Your task to perform on an android device: change your default location settings in chrome Image 0: 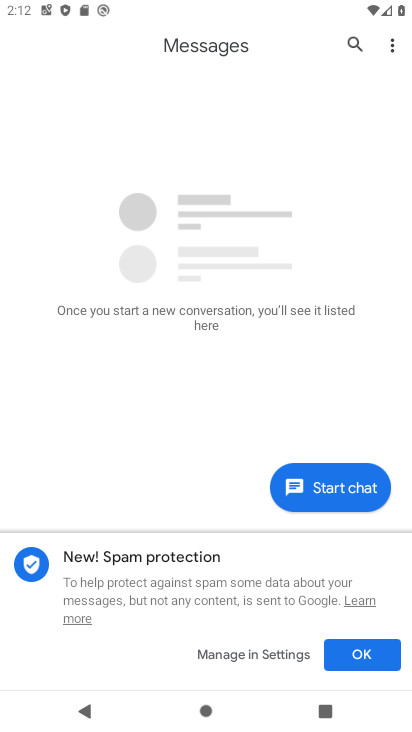
Step 0: press home button
Your task to perform on an android device: change your default location settings in chrome Image 1: 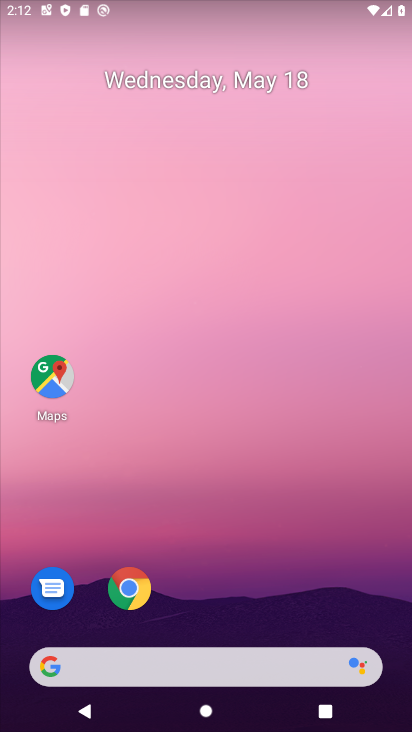
Step 1: drag from (363, 612) to (357, 195)
Your task to perform on an android device: change your default location settings in chrome Image 2: 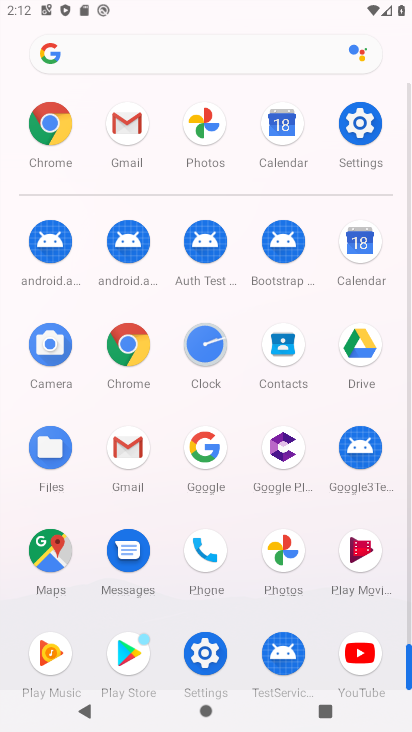
Step 2: click (124, 353)
Your task to perform on an android device: change your default location settings in chrome Image 3: 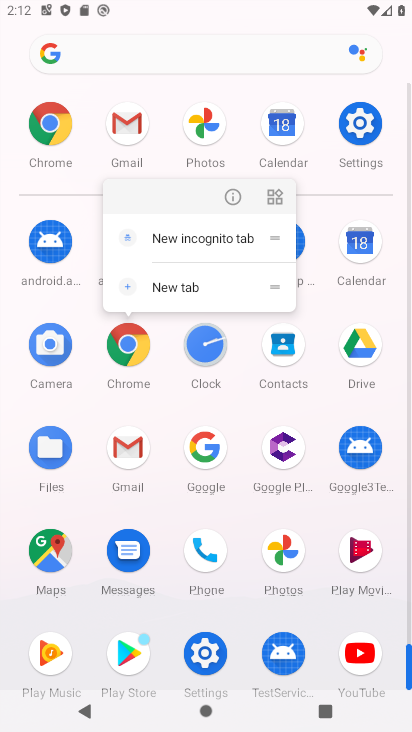
Step 3: click (124, 353)
Your task to perform on an android device: change your default location settings in chrome Image 4: 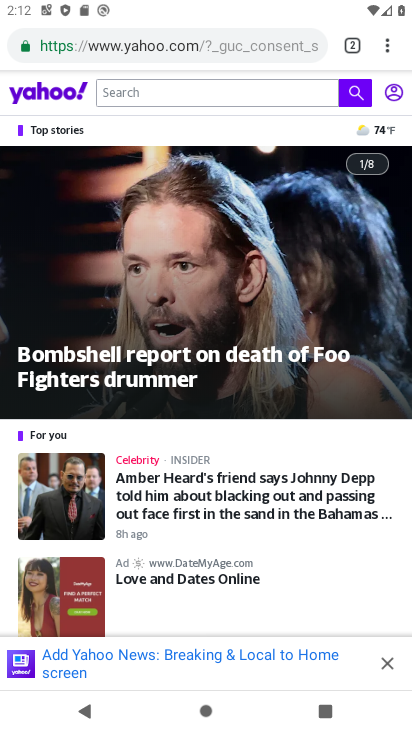
Step 4: press back button
Your task to perform on an android device: change your default location settings in chrome Image 5: 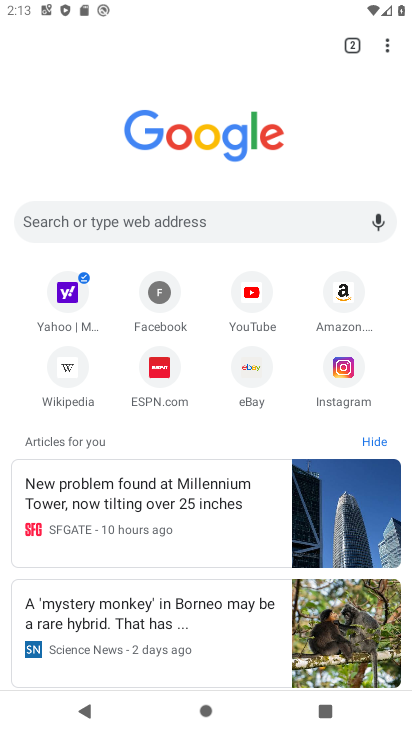
Step 5: click (382, 43)
Your task to perform on an android device: change your default location settings in chrome Image 6: 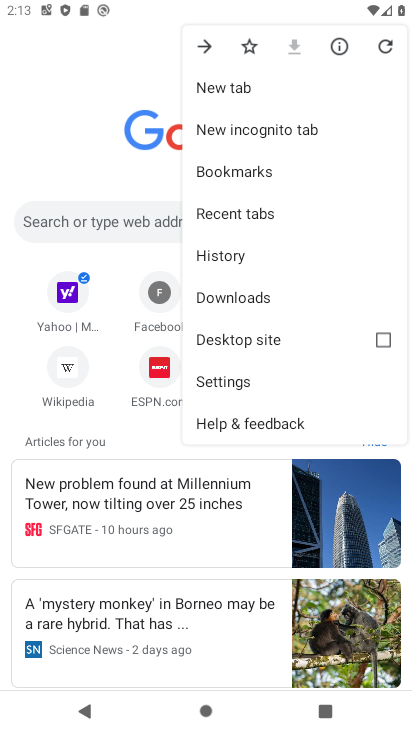
Step 6: click (237, 376)
Your task to perform on an android device: change your default location settings in chrome Image 7: 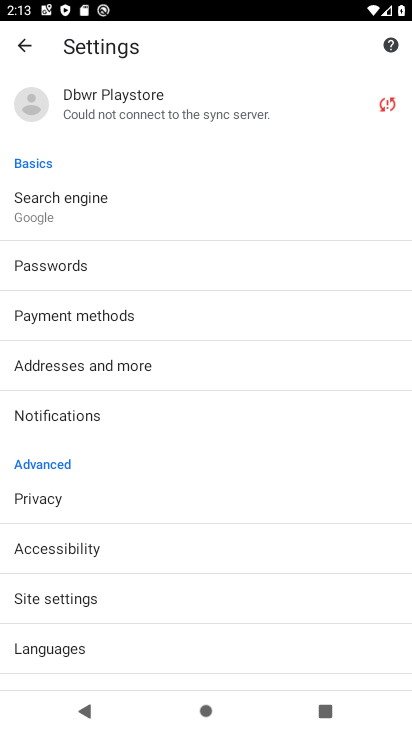
Step 7: drag from (302, 575) to (305, 467)
Your task to perform on an android device: change your default location settings in chrome Image 8: 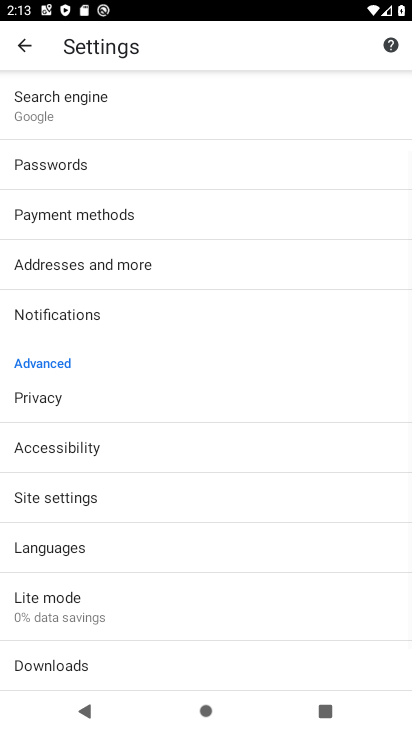
Step 8: drag from (293, 609) to (292, 484)
Your task to perform on an android device: change your default location settings in chrome Image 9: 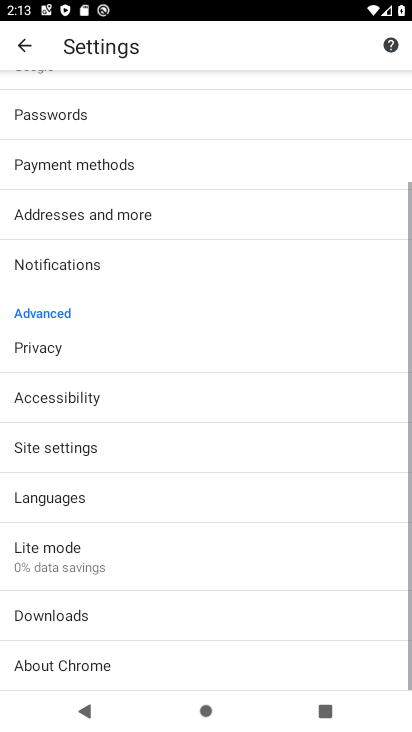
Step 9: drag from (285, 644) to (282, 403)
Your task to perform on an android device: change your default location settings in chrome Image 10: 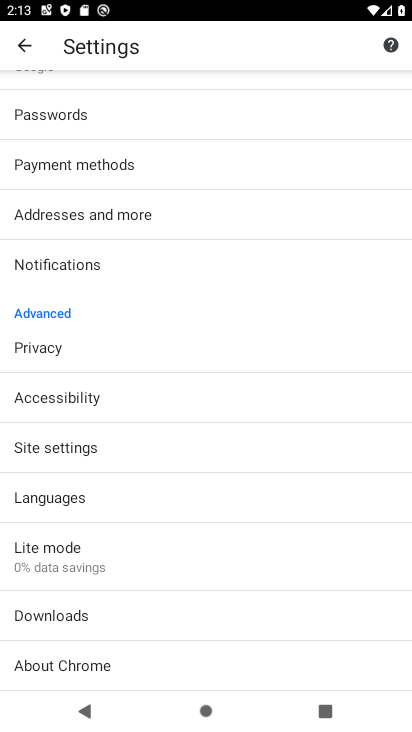
Step 10: drag from (292, 284) to (298, 388)
Your task to perform on an android device: change your default location settings in chrome Image 11: 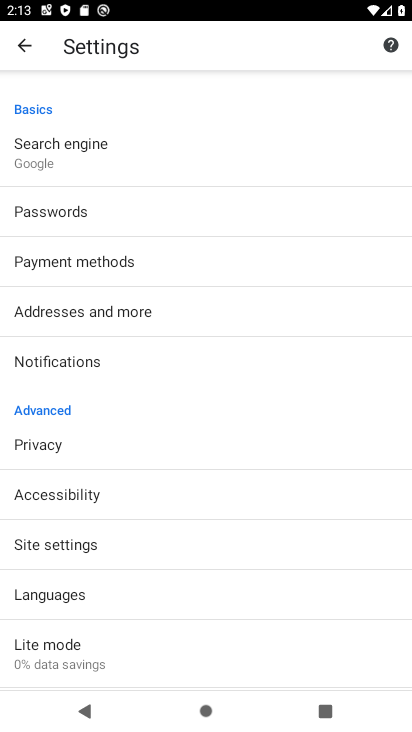
Step 11: drag from (305, 272) to (297, 391)
Your task to perform on an android device: change your default location settings in chrome Image 12: 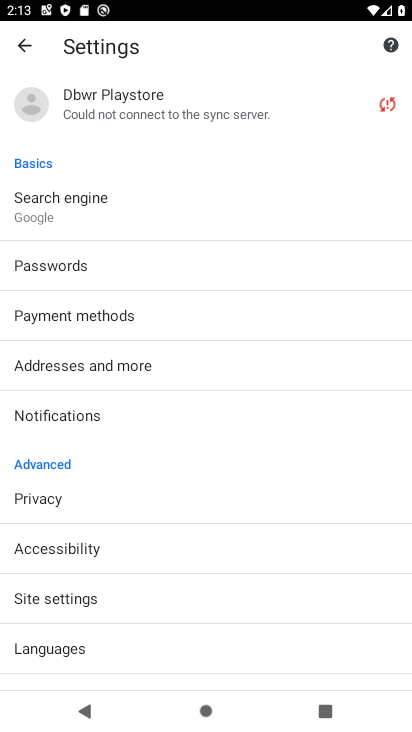
Step 12: drag from (259, 541) to (260, 369)
Your task to perform on an android device: change your default location settings in chrome Image 13: 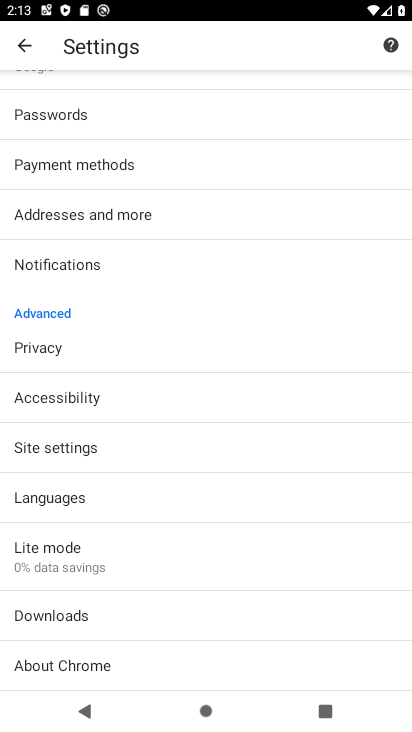
Step 13: click (199, 444)
Your task to perform on an android device: change your default location settings in chrome Image 14: 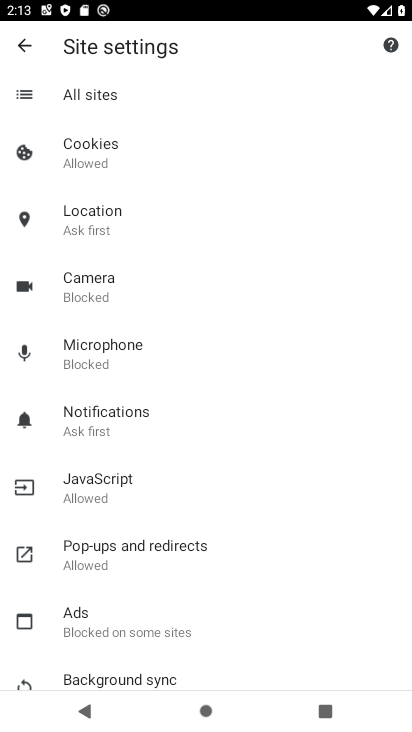
Step 14: drag from (219, 585) to (228, 425)
Your task to perform on an android device: change your default location settings in chrome Image 15: 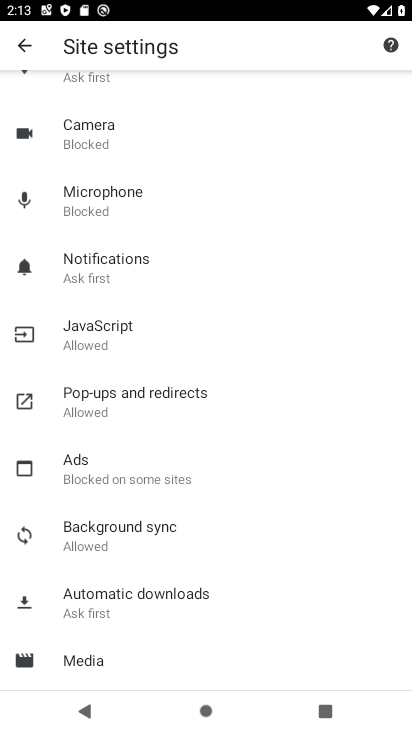
Step 15: drag from (248, 607) to (259, 469)
Your task to perform on an android device: change your default location settings in chrome Image 16: 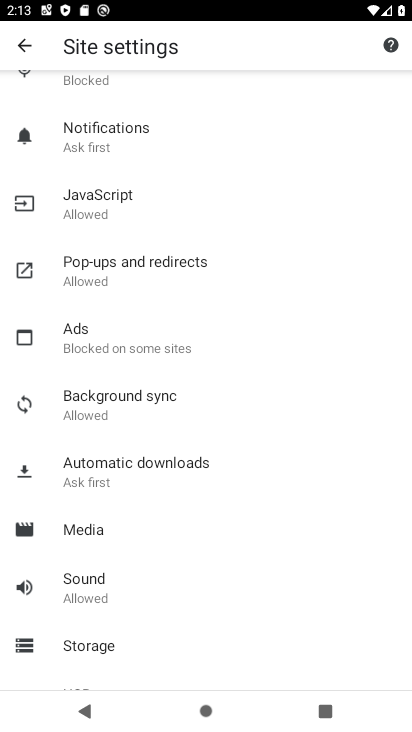
Step 16: drag from (252, 616) to (260, 477)
Your task to perform on an android device: change your default location settings in chrome Image 17: 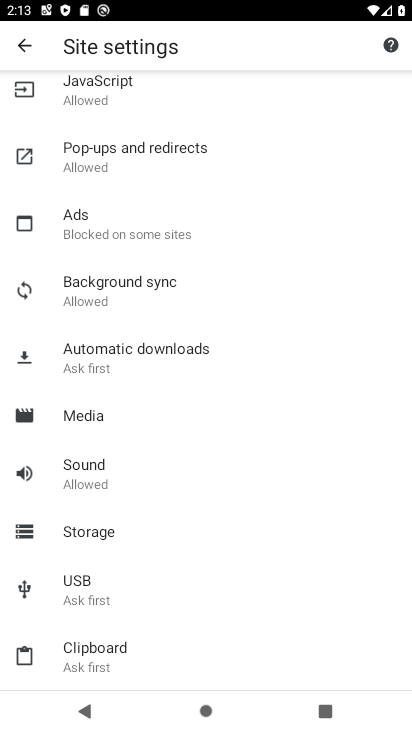
Step 17: drag from (230, 590) to (228, 416)
Your task to perform on an android device: change your default location settings in chrome Image 18: 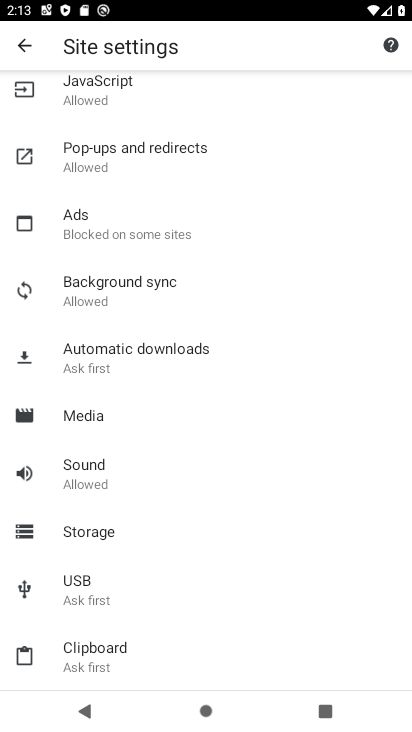
Step 18: drag from (239, 598) to (246, 424)
Your task to perform on an android device: change your default location settings in chrome Image 19: 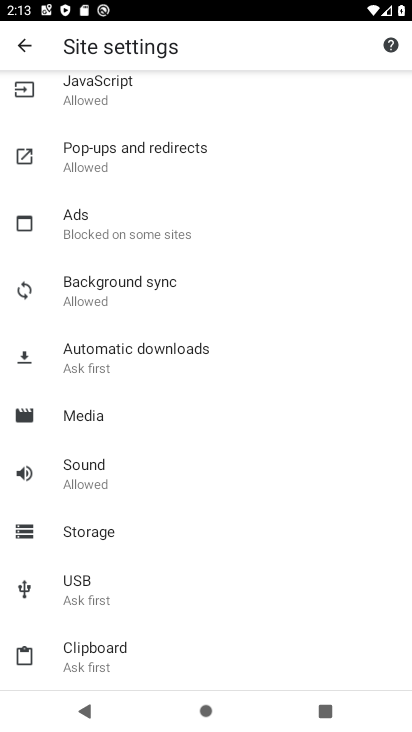
Step 19: drag from (250, 546) to (261, 395)
Your task to perform on an android device: change your default location settings in chrome Image 20: 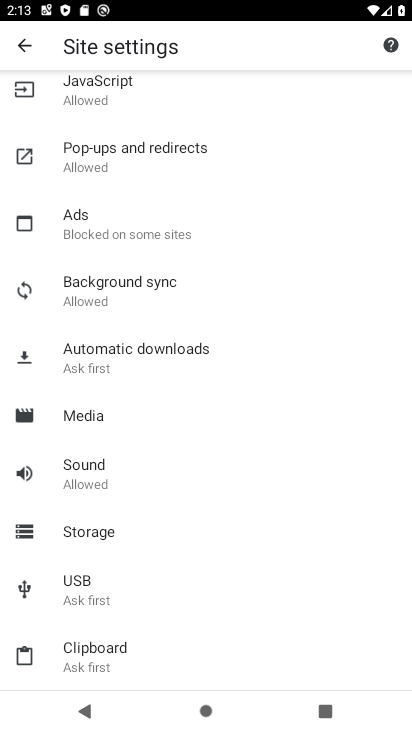
Step 20: drag from (261, 552) to (259, 407)
Your task to perform on an android device: change your default location settings in chrome Image 21: 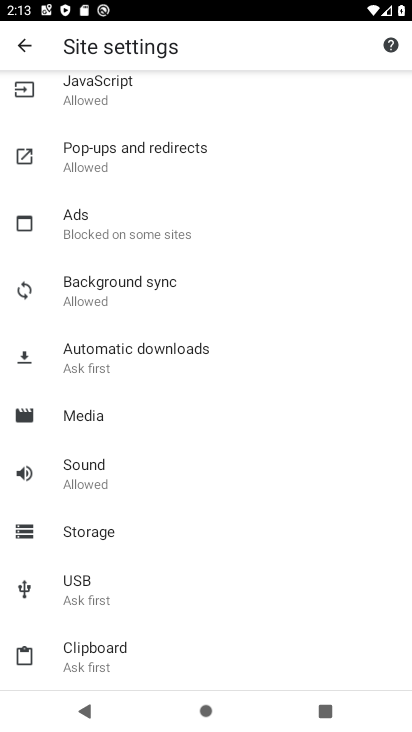
Step 21: drag from (299, 282) to (309, 437)
Your task to perform on an android device: change your default location settings in chrome Image 22: 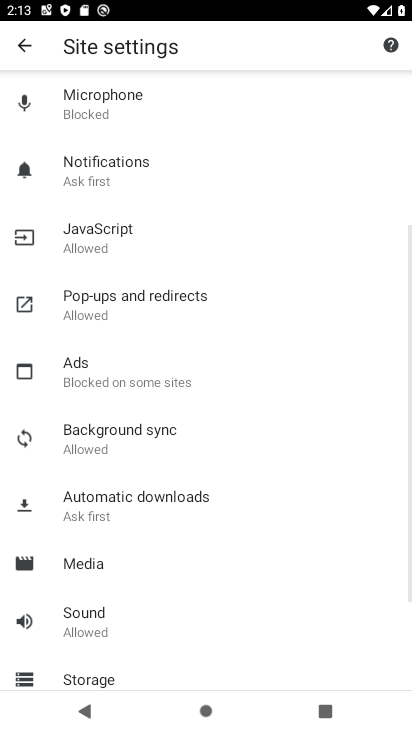
Step 22: drag from (311, 246) to (295, 446)
Your task to perform on an android device: change your default location settings in chrome Image 23: 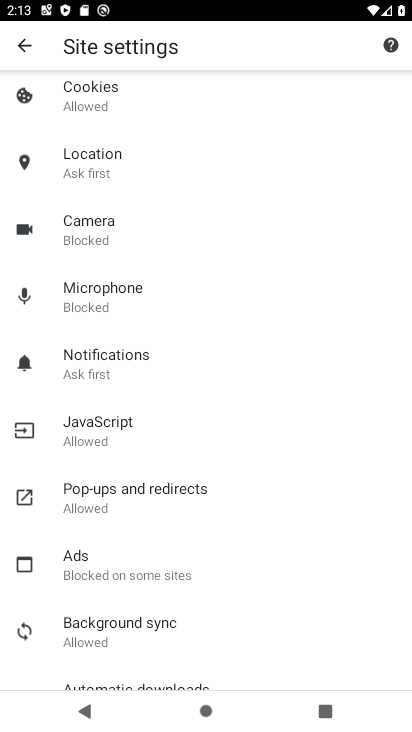
Step 23: drag from (305, 203) to (299, 392)
Your task to perform on an android device: change your default location settings in chrome Image 24: 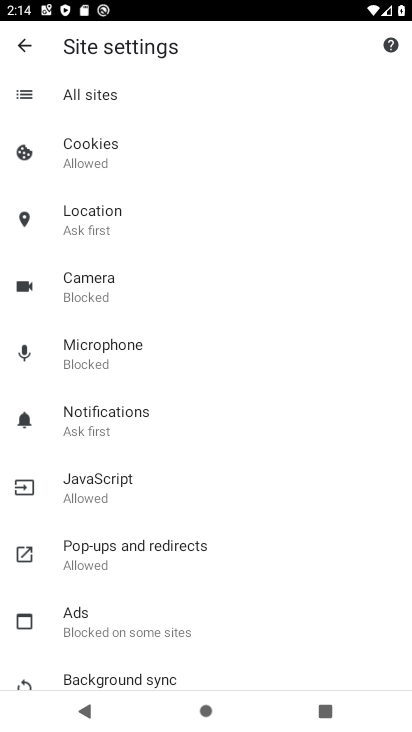
Step 24: drag from (294, 180) to (281, 424)
Your task to perform on an android device: change your default location settings in chrome Image 25: 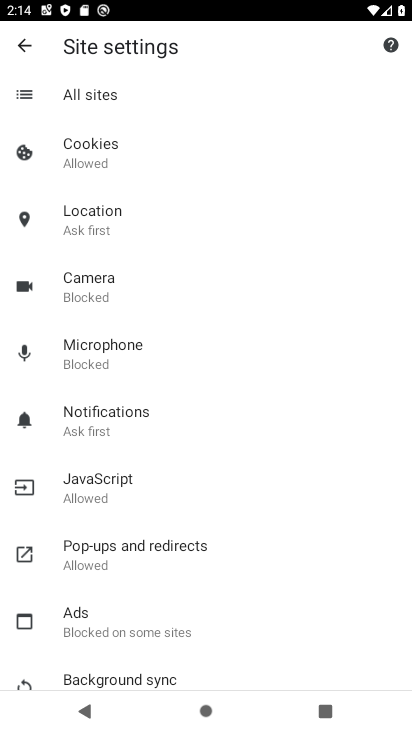
Step 25: drag from (282, 483) to (292, 381)
Your task to perform on an android device: change your default location settings in chrome Image 26: 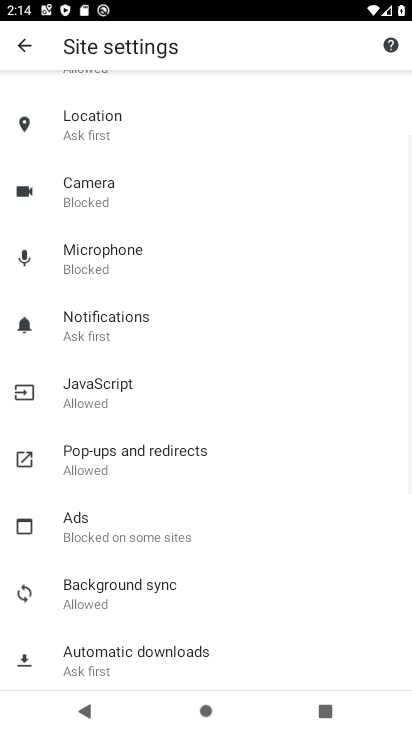
Step 26: drag from (282, 544) to (289, 355)
Your task to perform on an android device: change your default location settings in chrome Image 27: 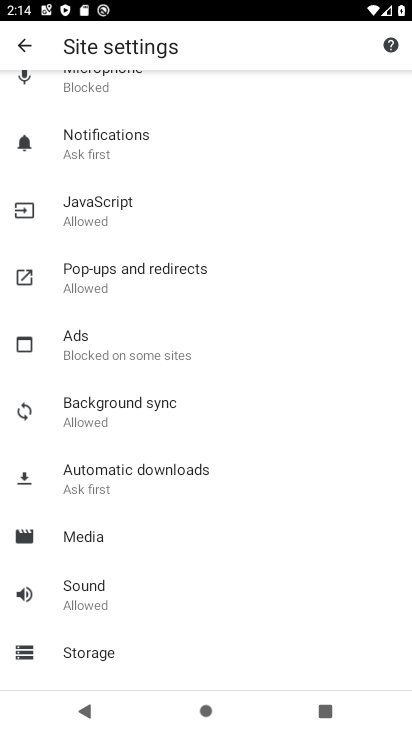
Step 27: drag from (274, 585) to (277, 380)
Your task to perform on an android device: change your default location settings in chrome Image 28: 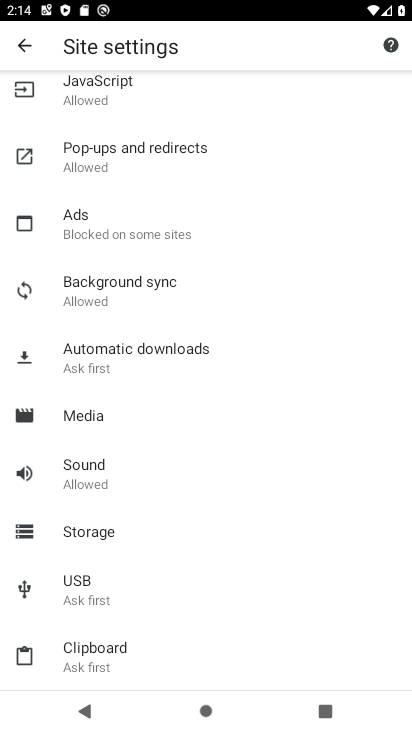
Step 28: drag from (256, 552) to (266, 403)
Your task to perform on an android device: change your default location settings in chrome Image 29: 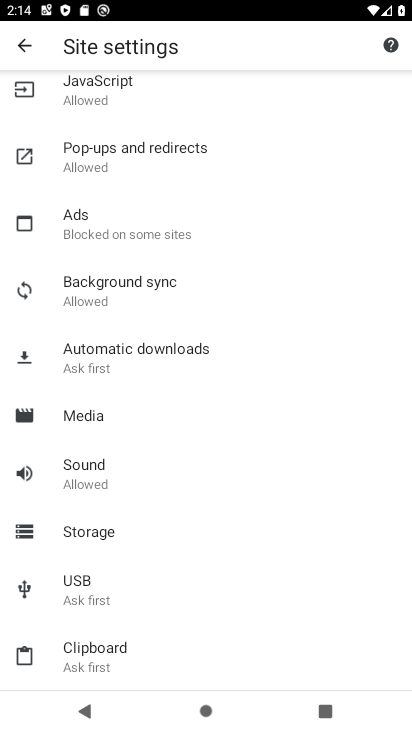
Step 29: drag from (280, 277) to (281, 455)
Your task to perform on an android device: change your default location settings in chrome Image 30: 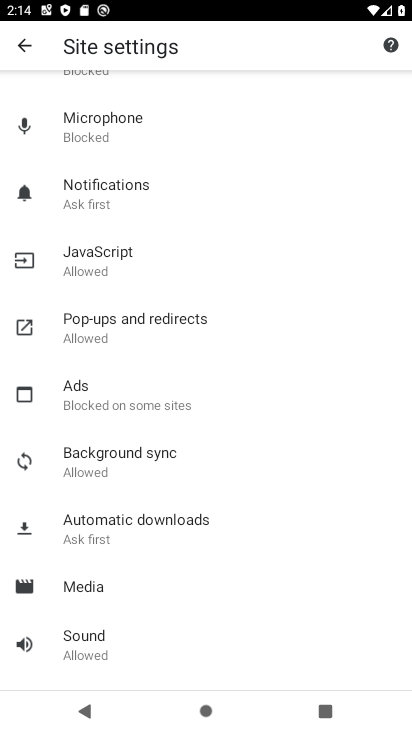
Step 30: drag from (289, 276) to (285, 446)
Your task to perform on an android device: change your default location settings in chrome Image 31: 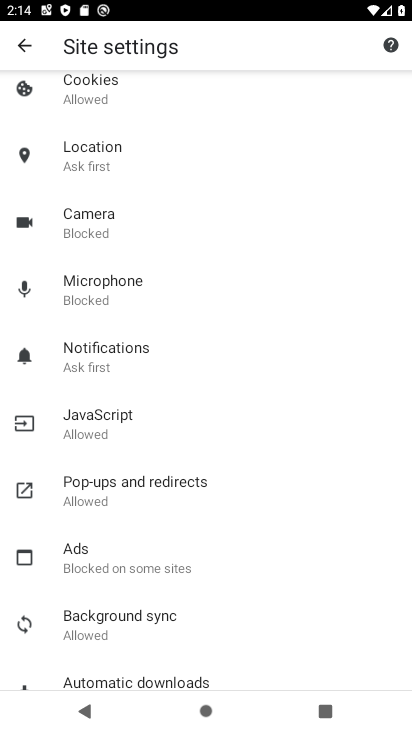
Step 31: click (86, 168)
Your task to perform on an android device: change your default location settings in chrome Image 32: 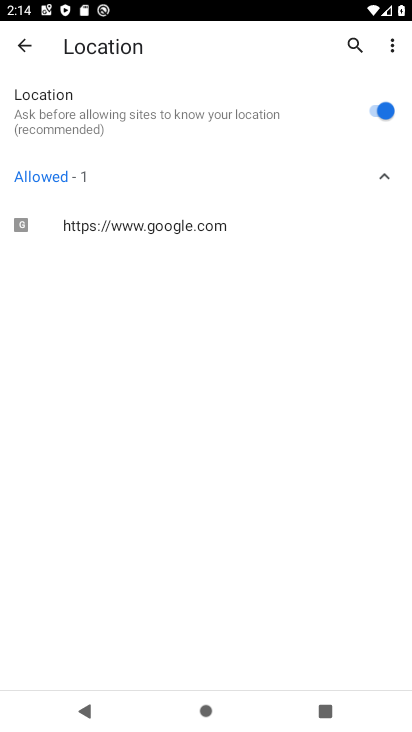
Step 32: click (378, 108)
Your task to perform on an android device: change your default location settings in chrome Image 33: 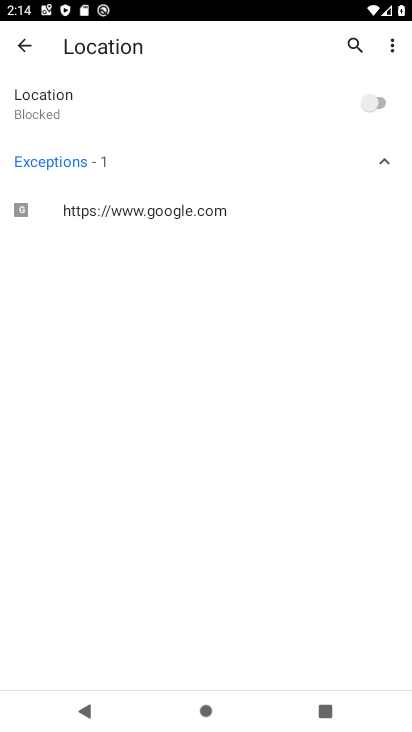
Step 33: task complete